Your task to perform on an android device: What is the news today? Image 0: 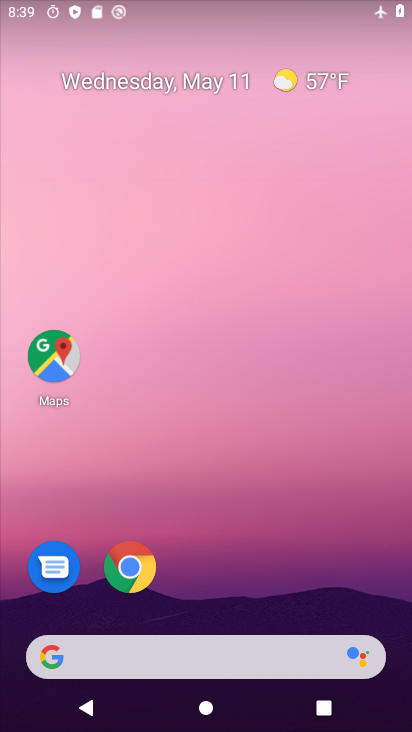
Step 0: drag from (281, 560) to (229, 113)
Your task to perform on an android device: What is the news today? Image 1: 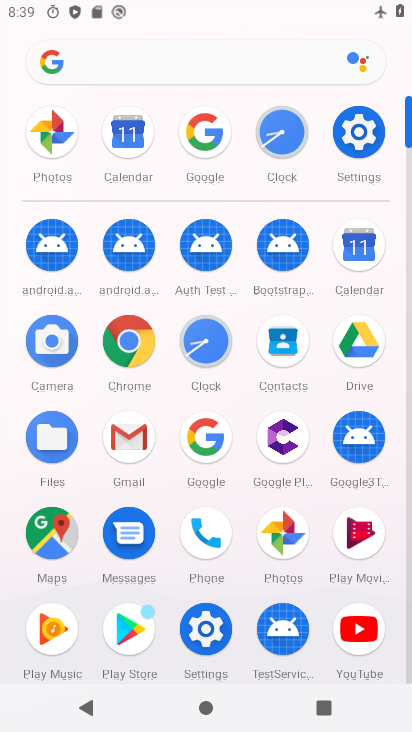
Step 1: click (204, 440)
Your task to perform on an android device: What is the news today? Image 2: 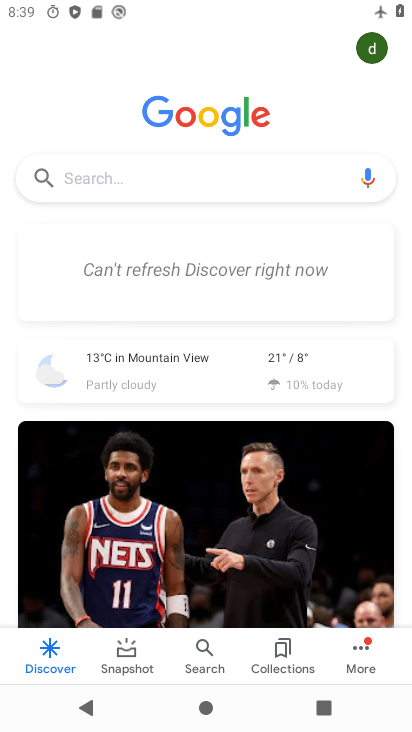
Step 2: task complete